Your task to perform on an android device: move a message to another label in the gmail app Image 0: 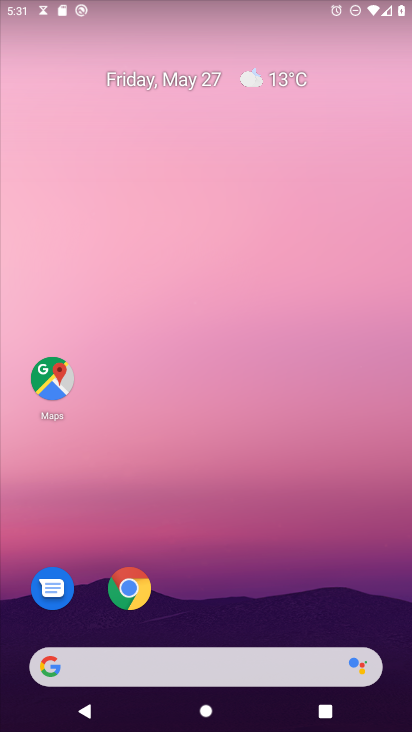
Step 0: drag from (236, 583) to (283, 105)
Your task to perform on an android device: move a message to another label in the gmail app Image 1: 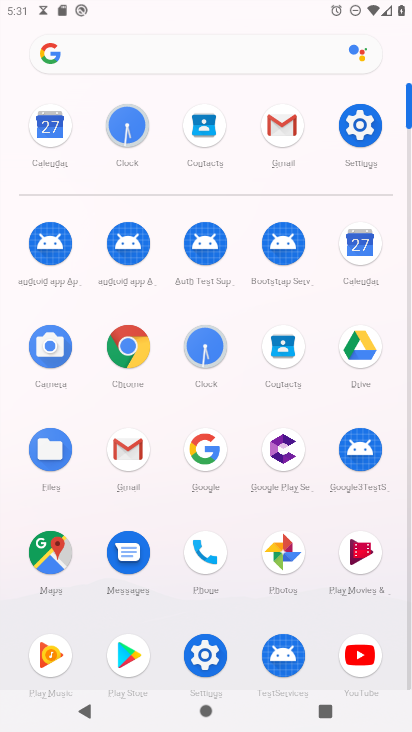
Step 1: click (271, 136)
Your task to perform on an android device: move a message to another label in the gmail app Image 2: 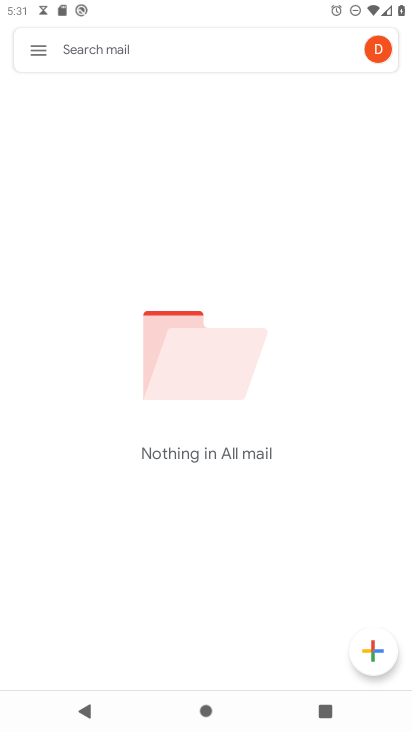
Step 2: task complete